Your task to perform on an android device: Open calendar and show me the second week of next month Image 0: 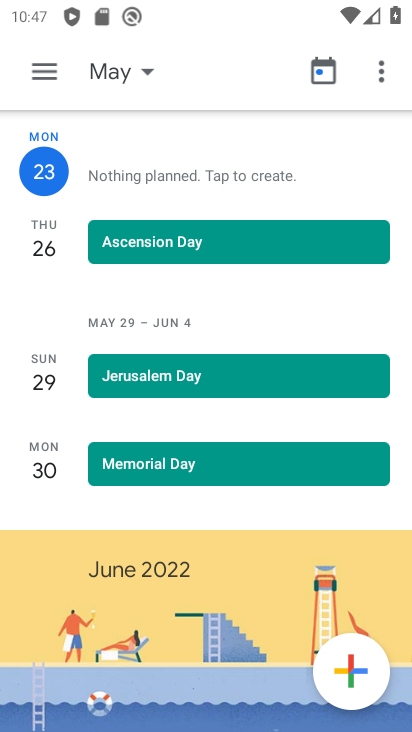
Step 0: click (95, 68)
Your task to perform on an android device: Open calendar and show me the second week of next month Image 1: 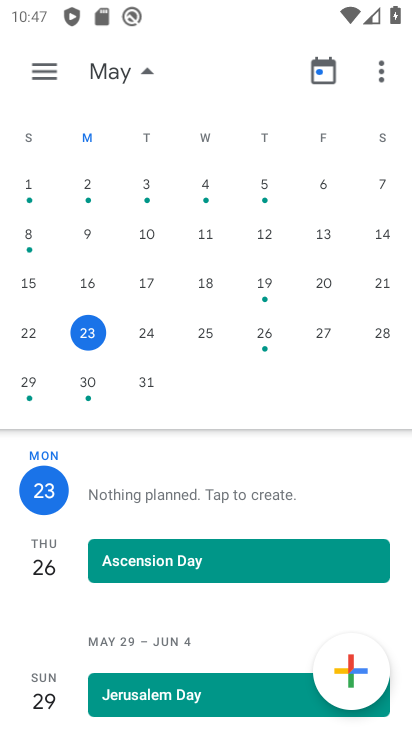
Step 1: drag from (346, 268) to (0, 268)
Your task to perform on an android device: Open calendar and show me the second week of next month Image 2: 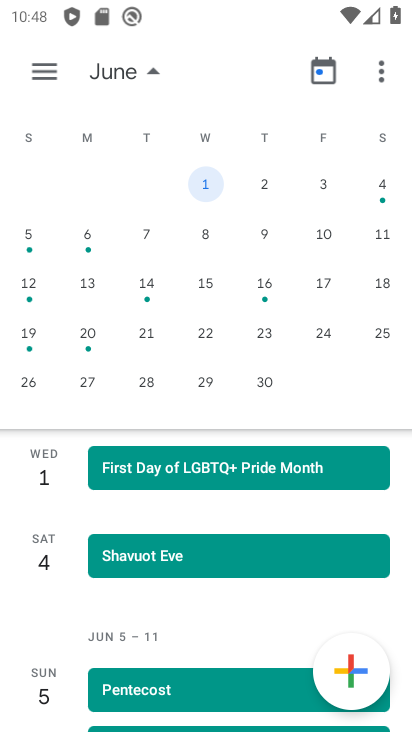
Step 2: click (26, 237)
Your task to perform on an android device: Open calendar and show me the second week of next month Image 3: 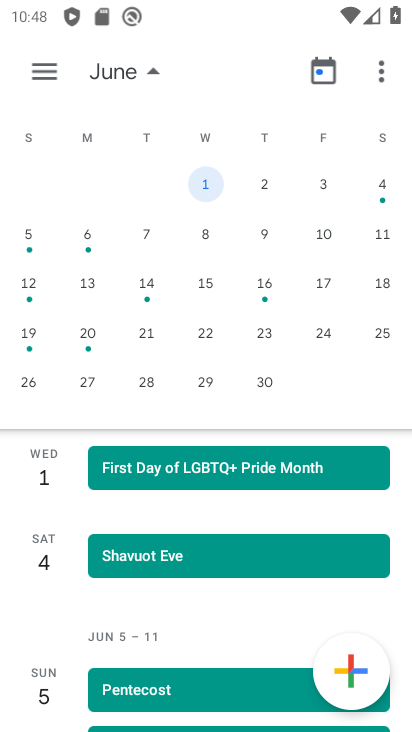
Step 3: click (32, 238)
Your task to perform on an android device: Open calendar and show me the second week of next month Image 4: 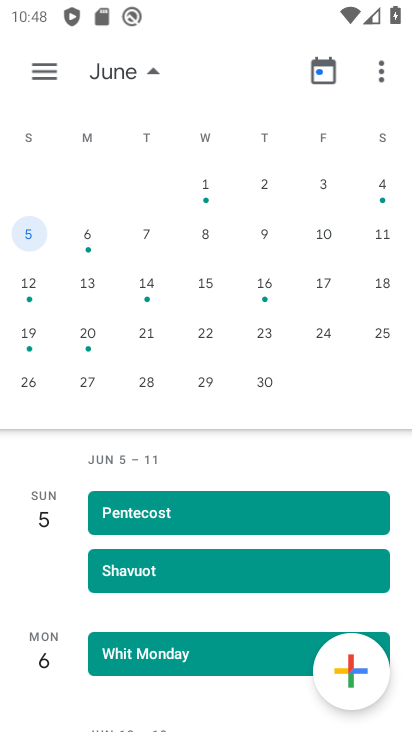
Step 4: task complete